Your task to perform on an android device: open chrome and create a bookmark for the current page Image 0: 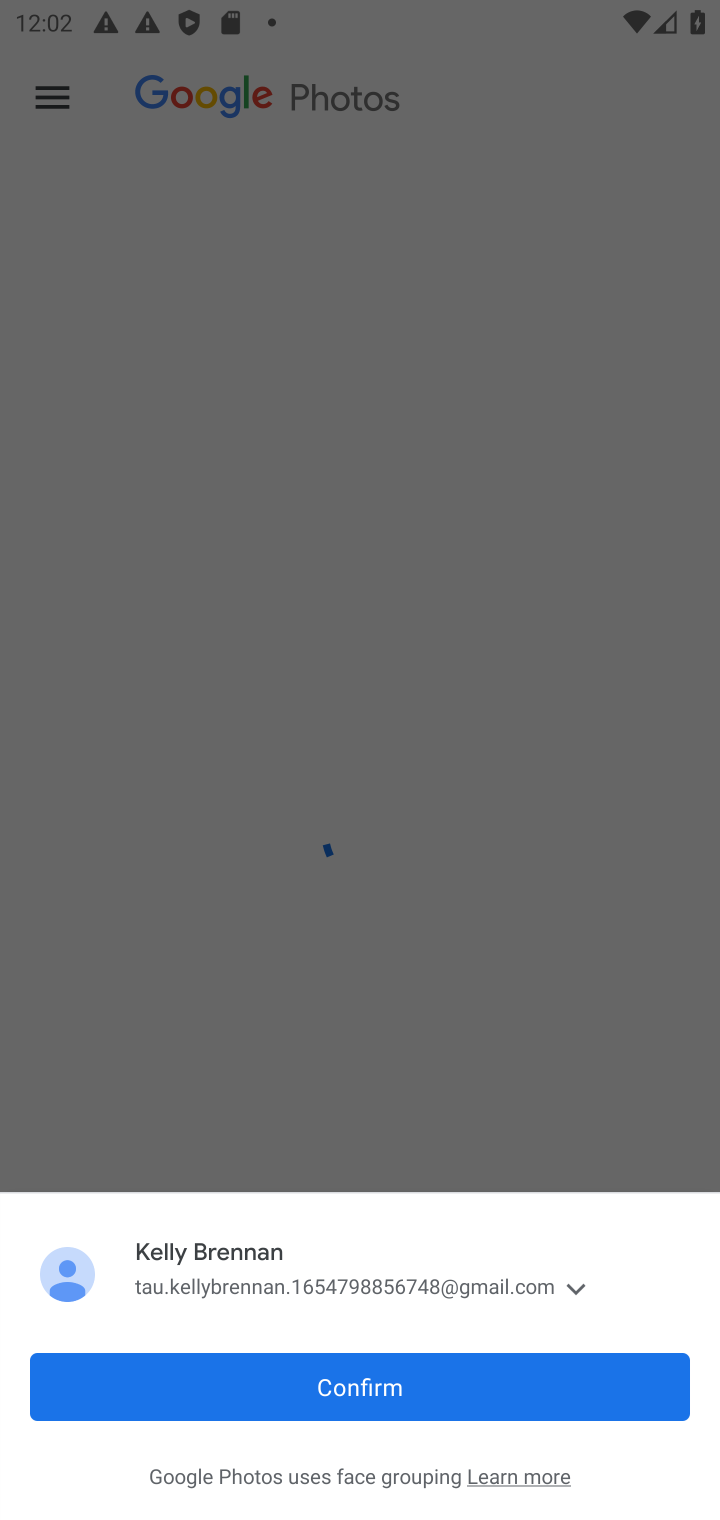
Step 0: press home button
Your task to perform on an android device: open chrome and create a bookmark for the current page Image 1: 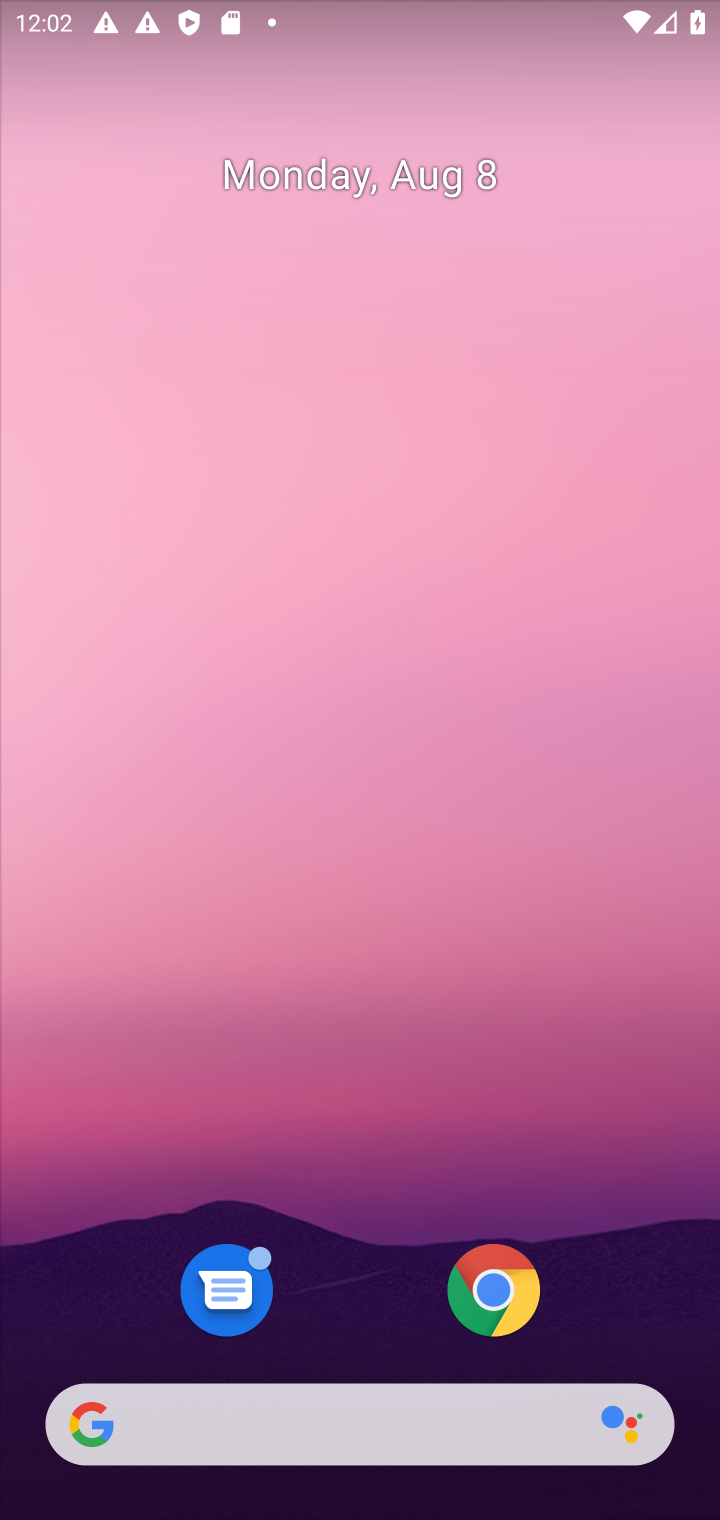
Step 1: click (506, 1291)
Your task to perform on an android device: open chrome and create a bookmark for the current page Image 2: 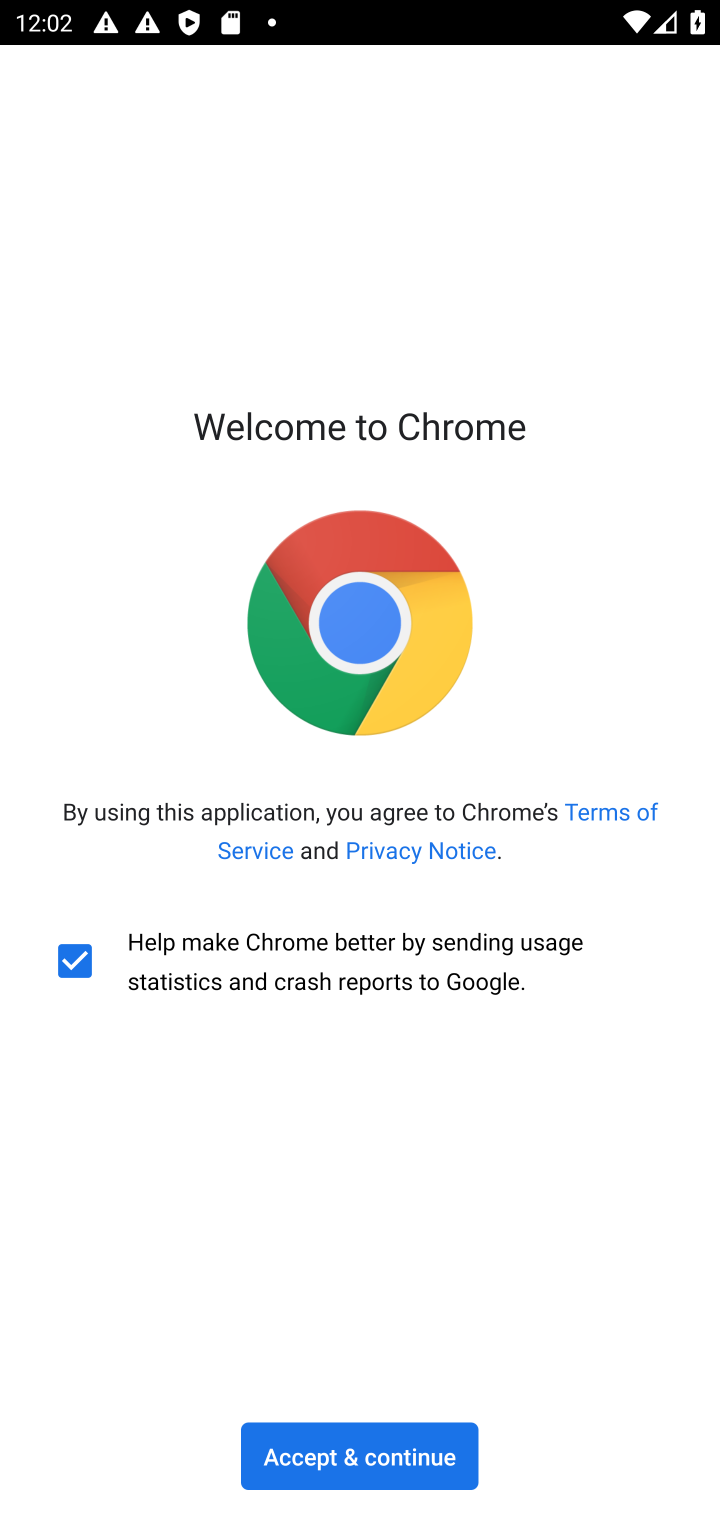
Step 2: click (393, 1424)
Your task to perform on an android device: open chrome and create a bookmark for the current page Image 3: 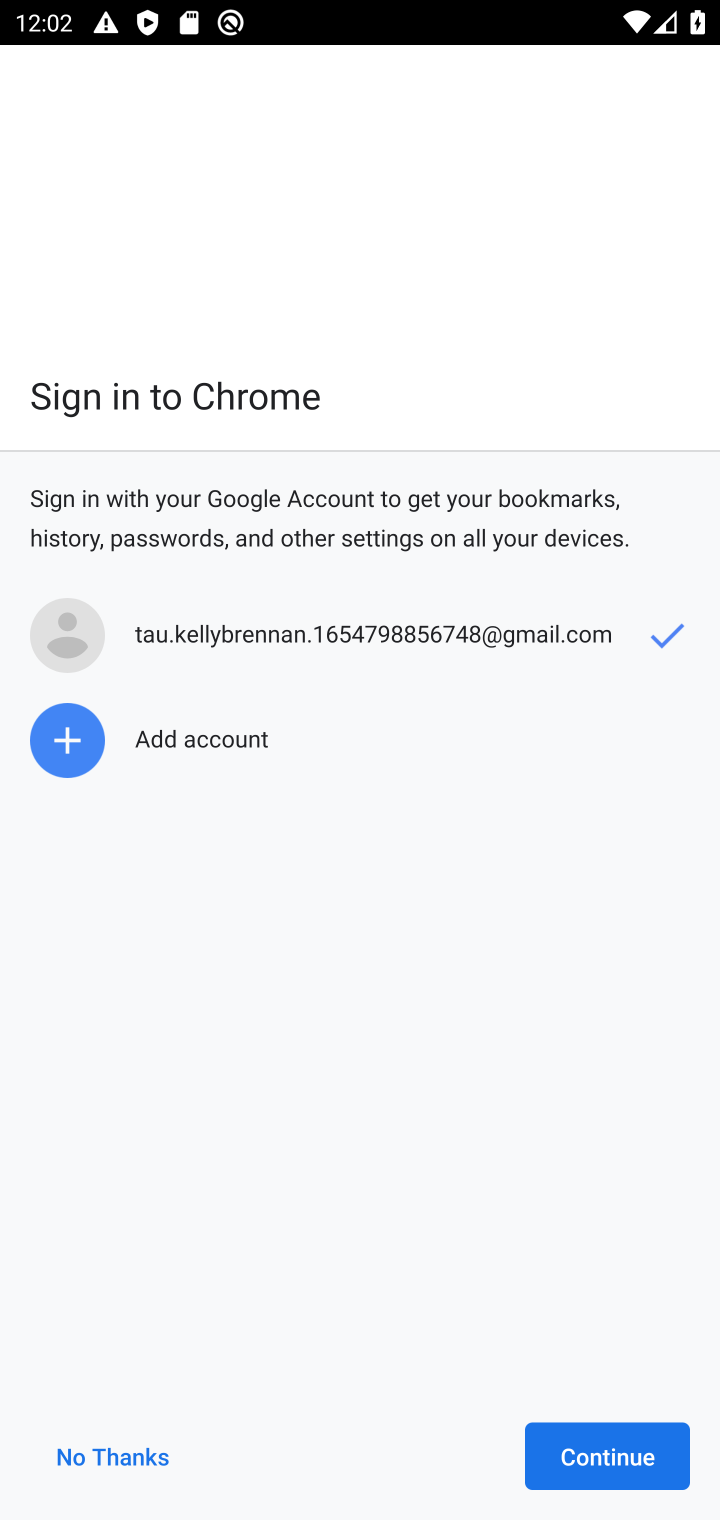
Step 3: click (590, 1462)
Your task to perform on an android device: open chrome and create a bookmark for the current page Image 4: 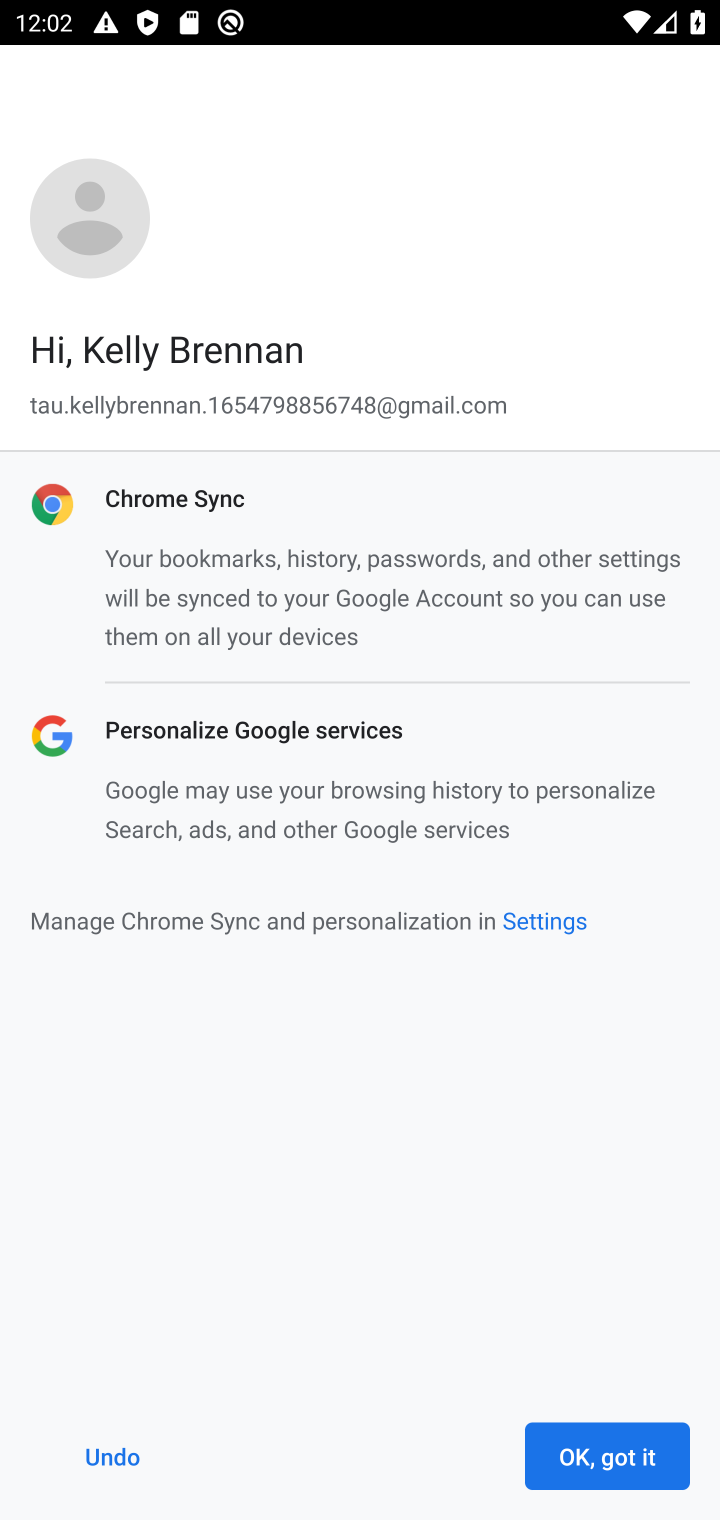
Step 4: click (587, 1460)
Your task to perform on an android device: open chrome and create a bookmark for the current page Image 5: 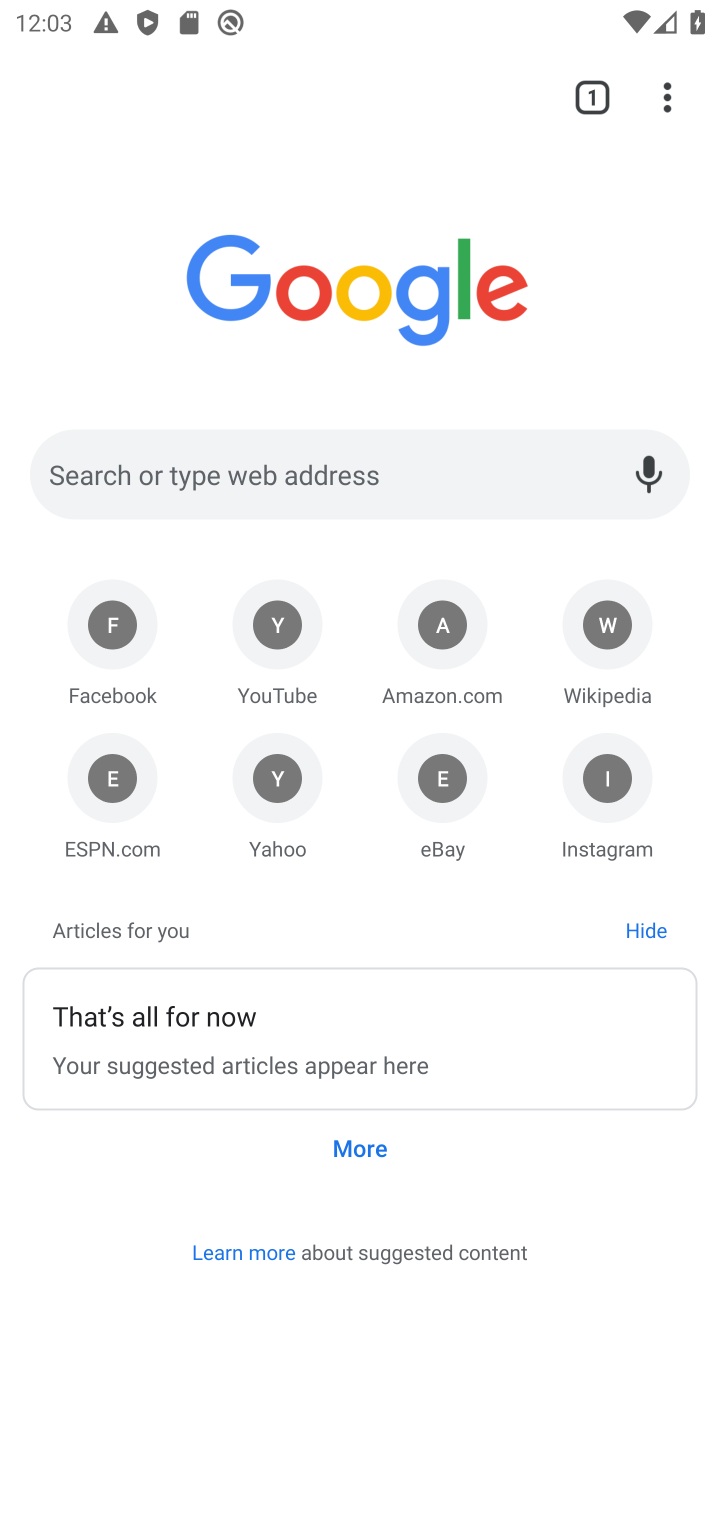
Step 5: click (661, 103)
Your task to perform on an android device: open chrome and create a bookmark for the current page Image 6: 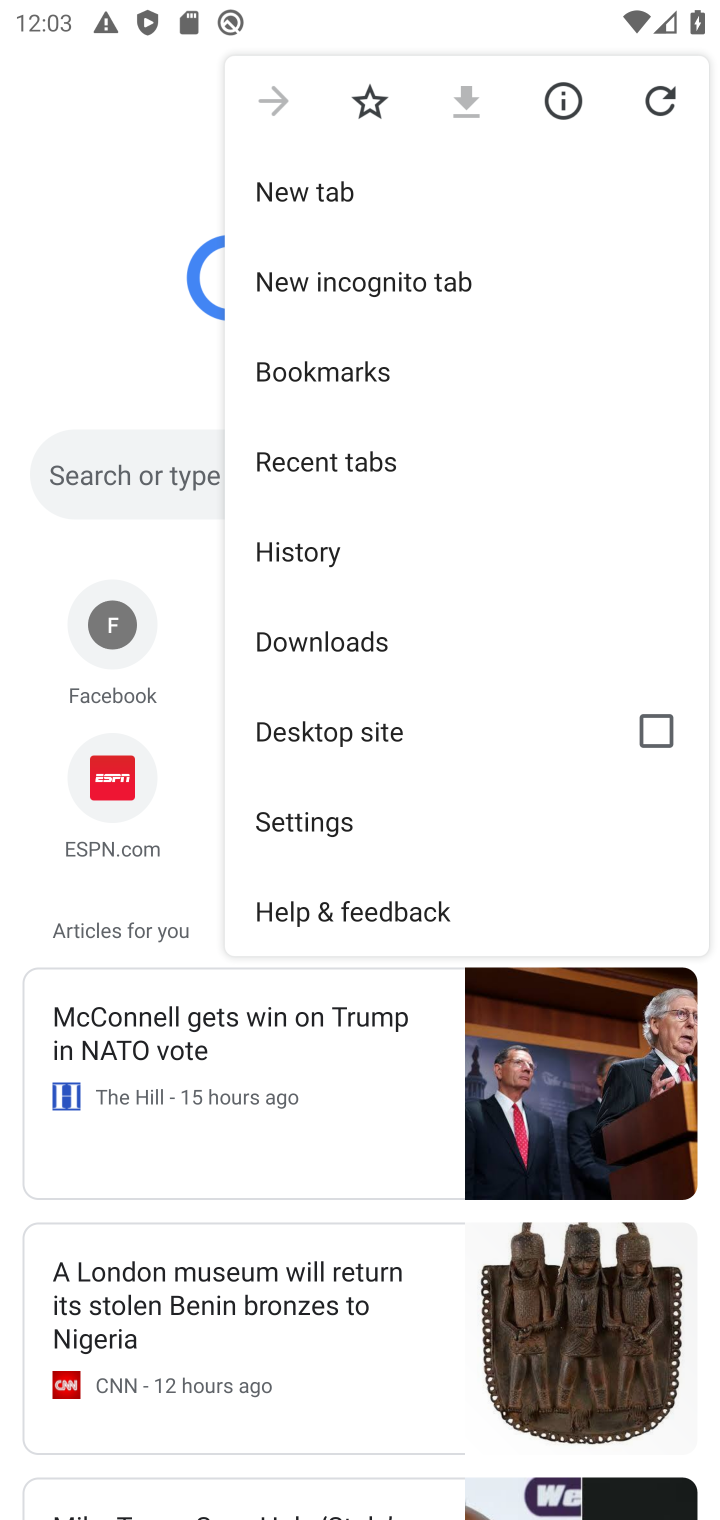
Step 6: click (367, 104)
Your task to perform on an android device: open chrome and create a bookmark for the current page Image 7: 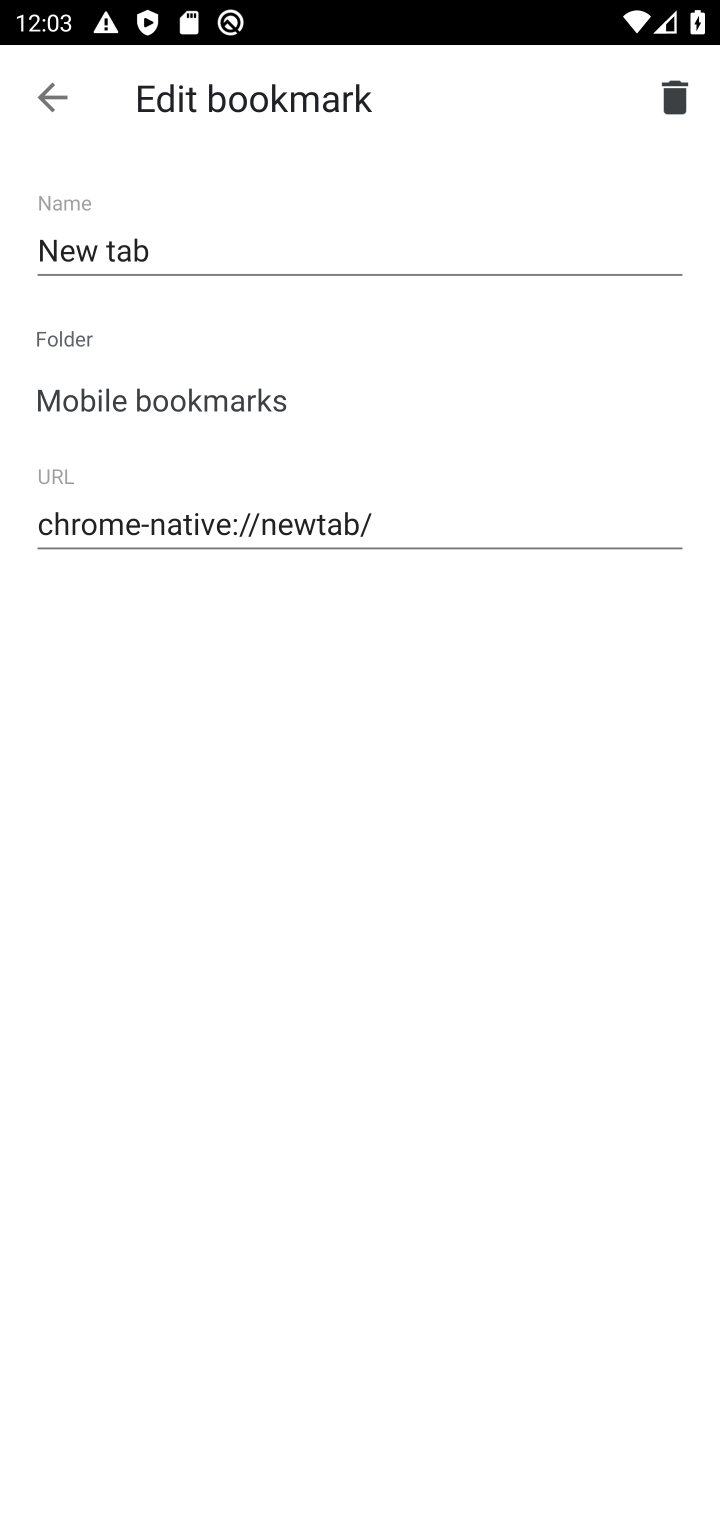
Step 7: task complete